Your task to perform on an android device: turn on priority inbox in the gmail app Image 0: 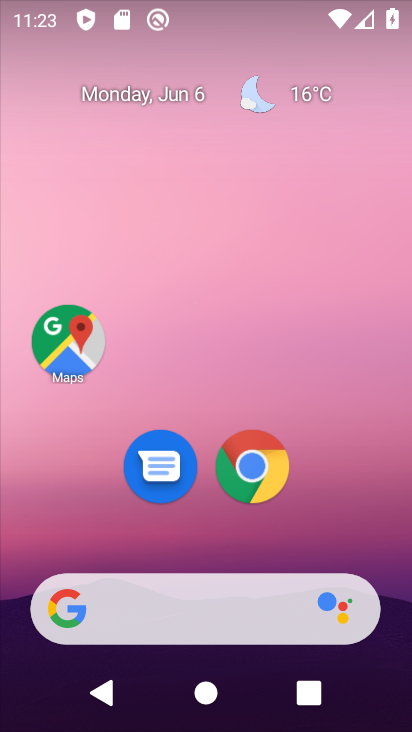
Step 0: drag from (150, 635) to (153, 84)
Your task to perform on an android device: turn on priority inbox in the gmail app Image 1: 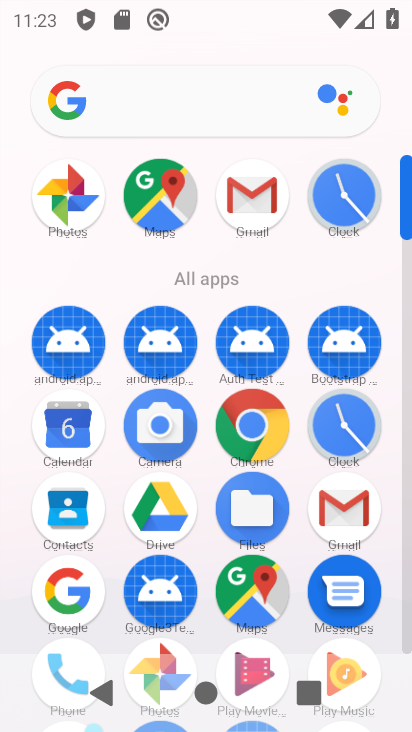
Step 1: click (341, 515)
Your task to perform on an android device: turn on priority inbox in the gmail app Image 2: 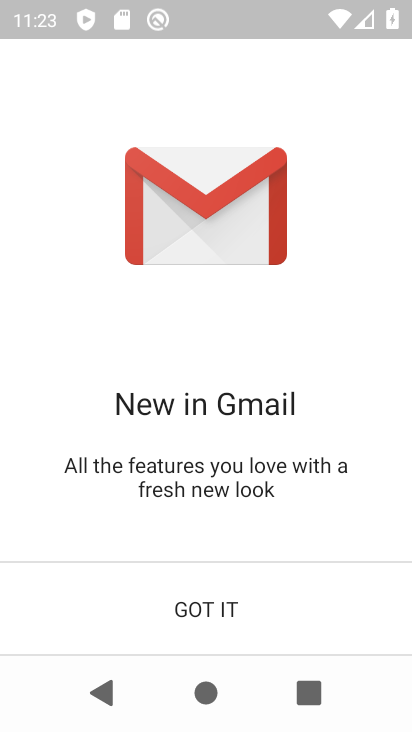
Step 2: click (253, 599)
Your task to perform on an android device: turn on priority inbox in the gmail app Image 3: 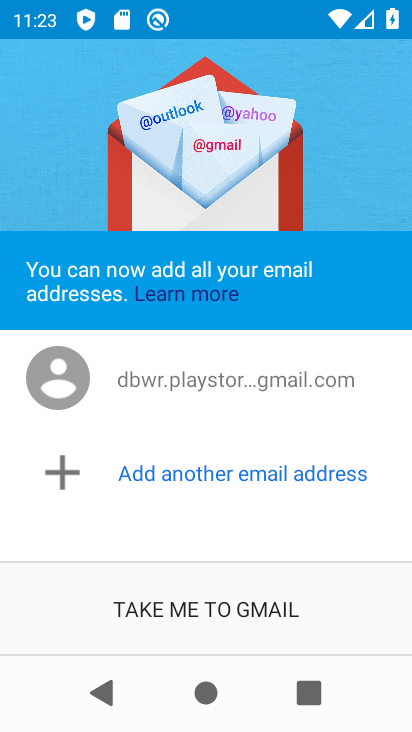
Step 3: click (253, 599)
Your task to perform on an android device: turn on priority inbox in the gmail app Image 4: 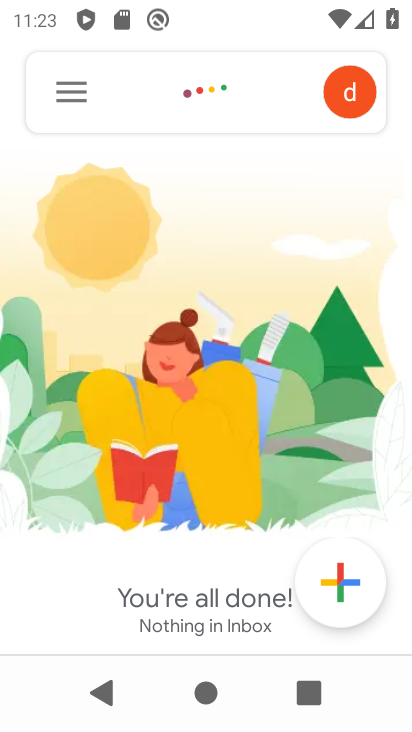
Step 4: task complete